Your task to perform on an android device: open app "Viber Messenger" (install if not already installed), go to login, and select forgot password Image 0: 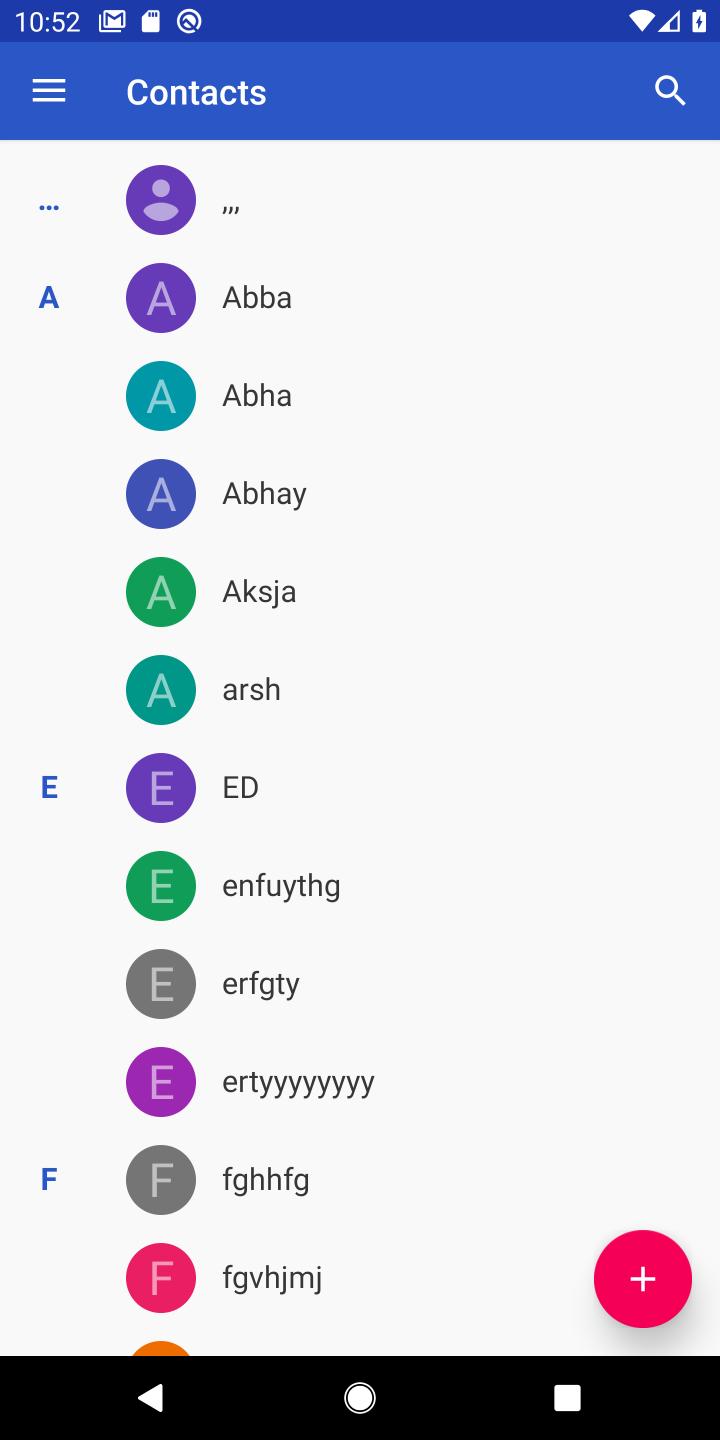
Step 0: press home button
Your task to perform on an android device: open app "Viber Messenger" (install if not already installed), go to login, and select forgot password Image 1: 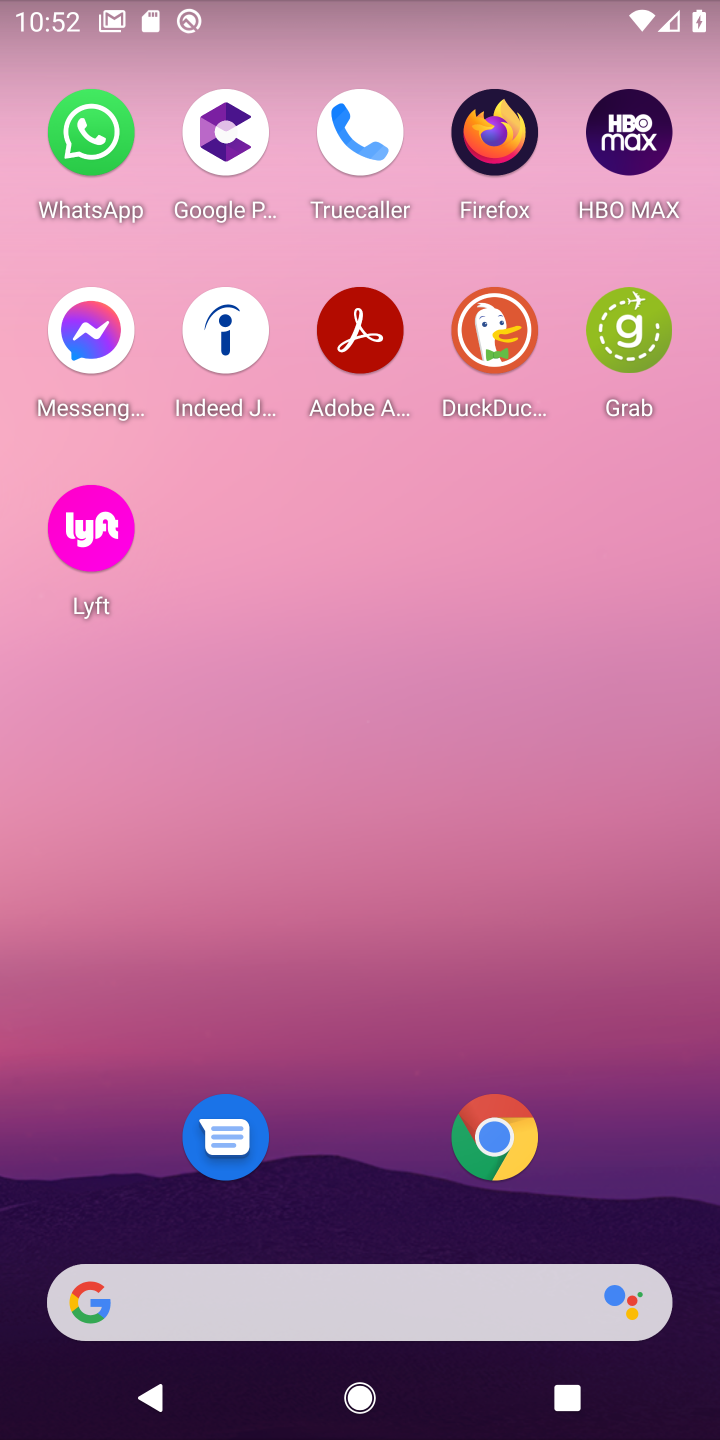
Step 1: drag from (346, 1099) to (375, 303)
Your task to perform on an android device: open app "Viber Messenger" (install if not already installed), go to login, and select forgot password Image 2: 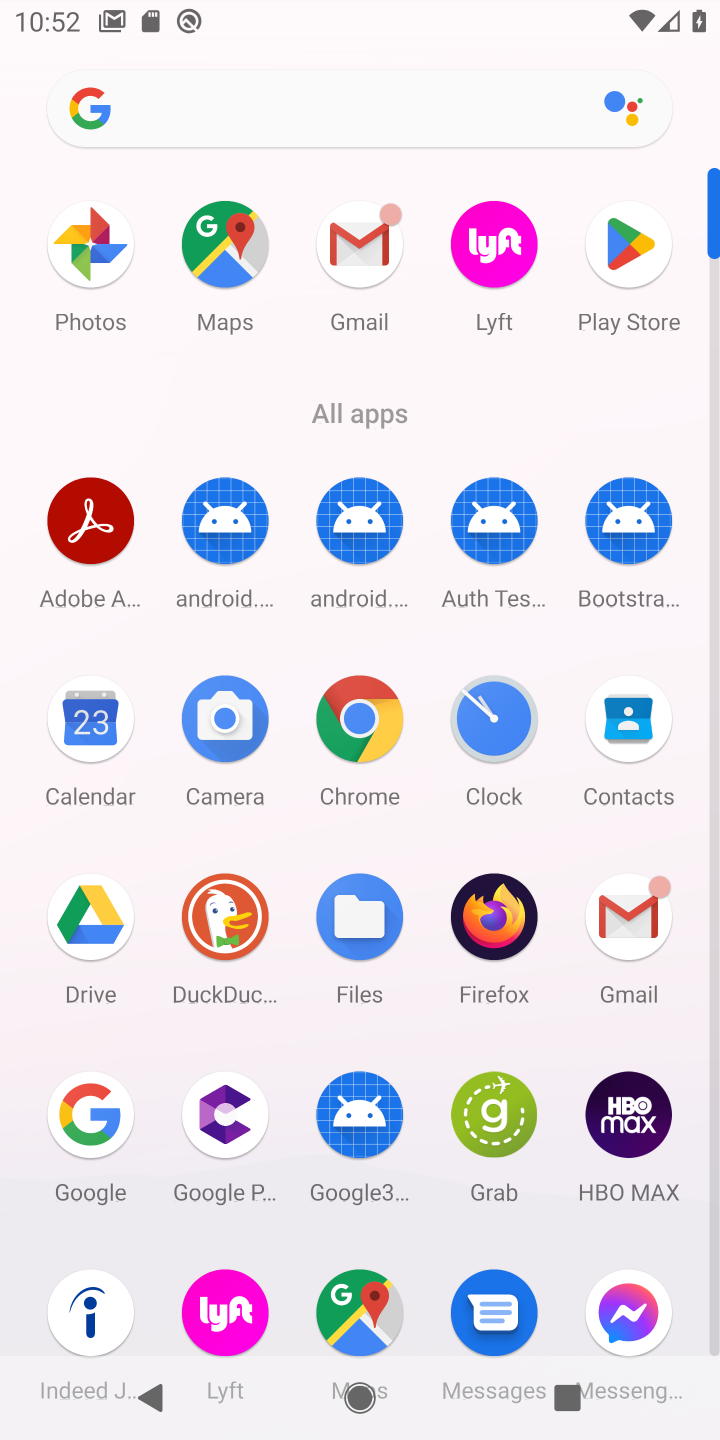
Step 2: click (618, 265)
Your task to perform on an android device: open app "Viber Messenger" (install if not already installed), go to login, and select forgot password Image 3: 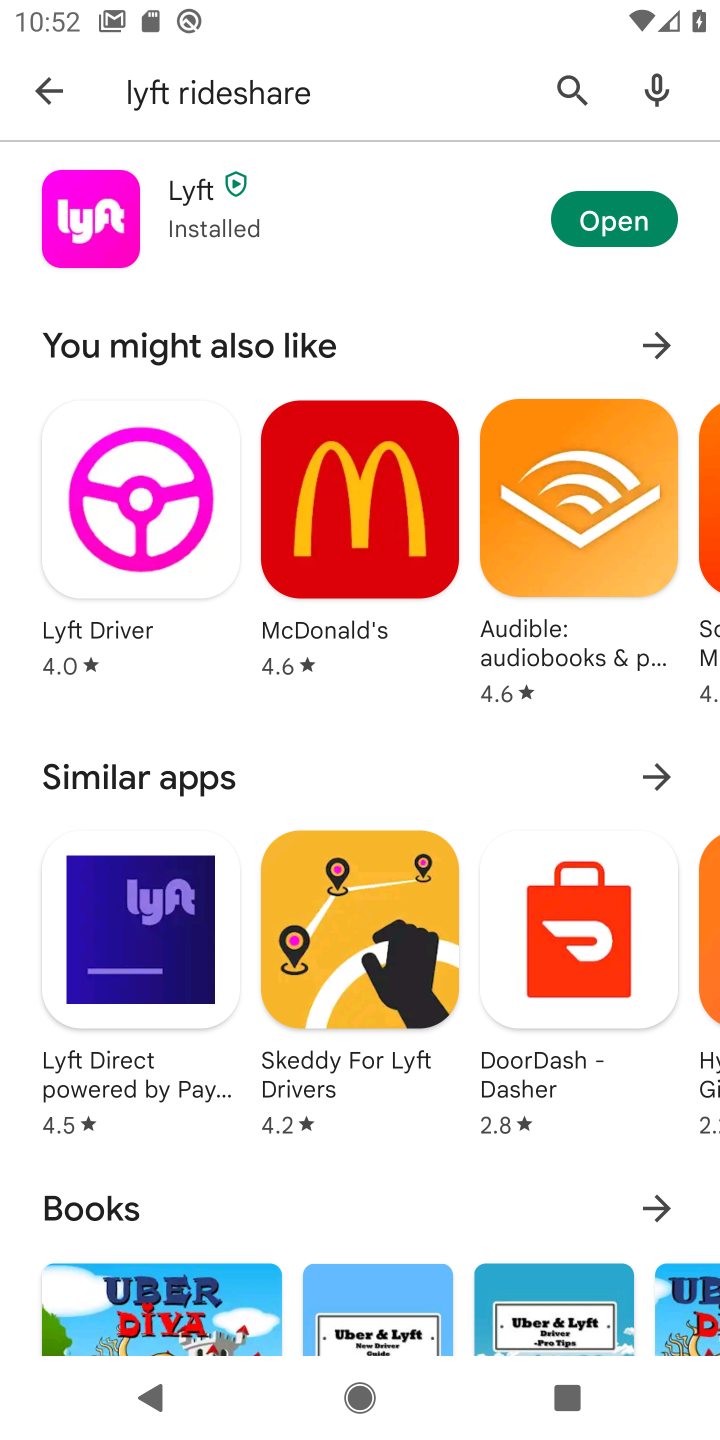
Step 3: click (254, 126)
Your task to perform on an android device: open app "Viber Messenger" (install if not already installed), go to login, and select forgot password Image 4: 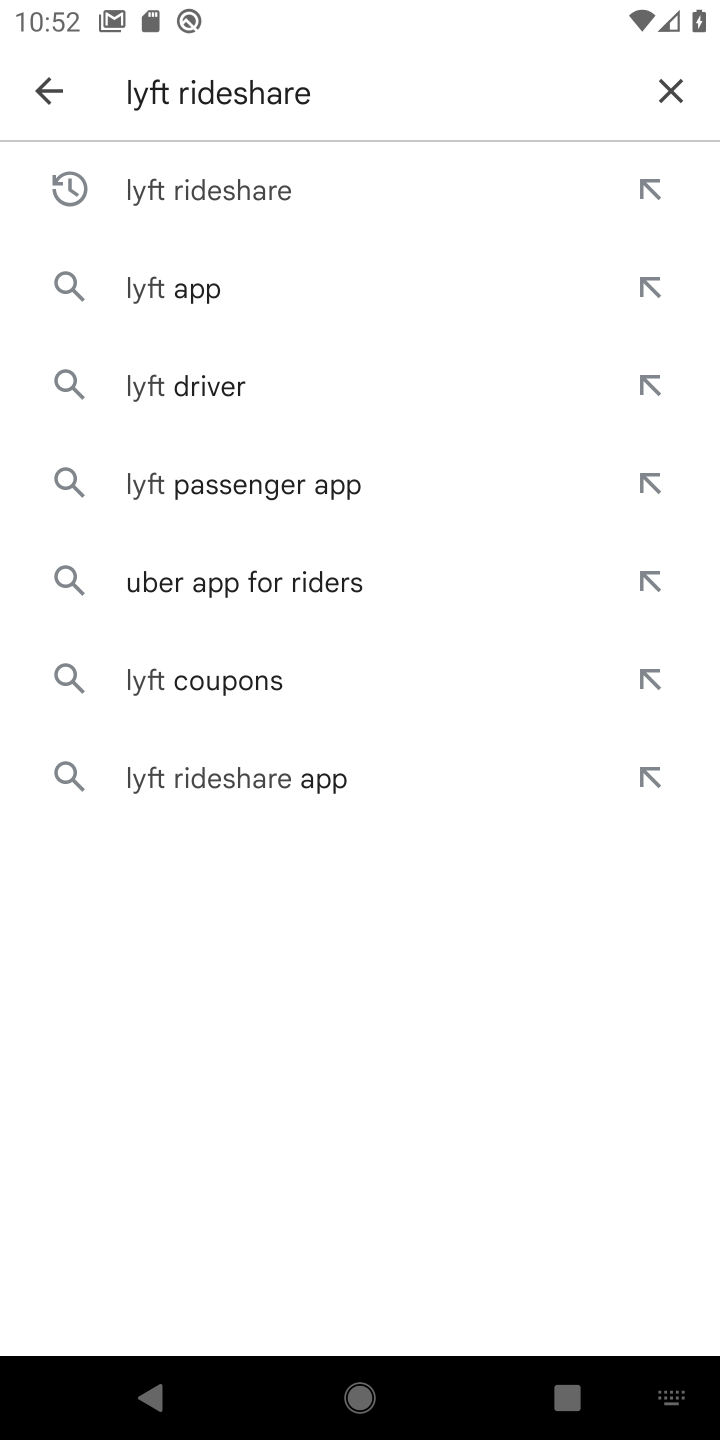
Step 4: click (657, 84)
Your task to perform on an android device: open app "Viber Messenger" (install if not already installed), go to login, and select forgot password Image 5: 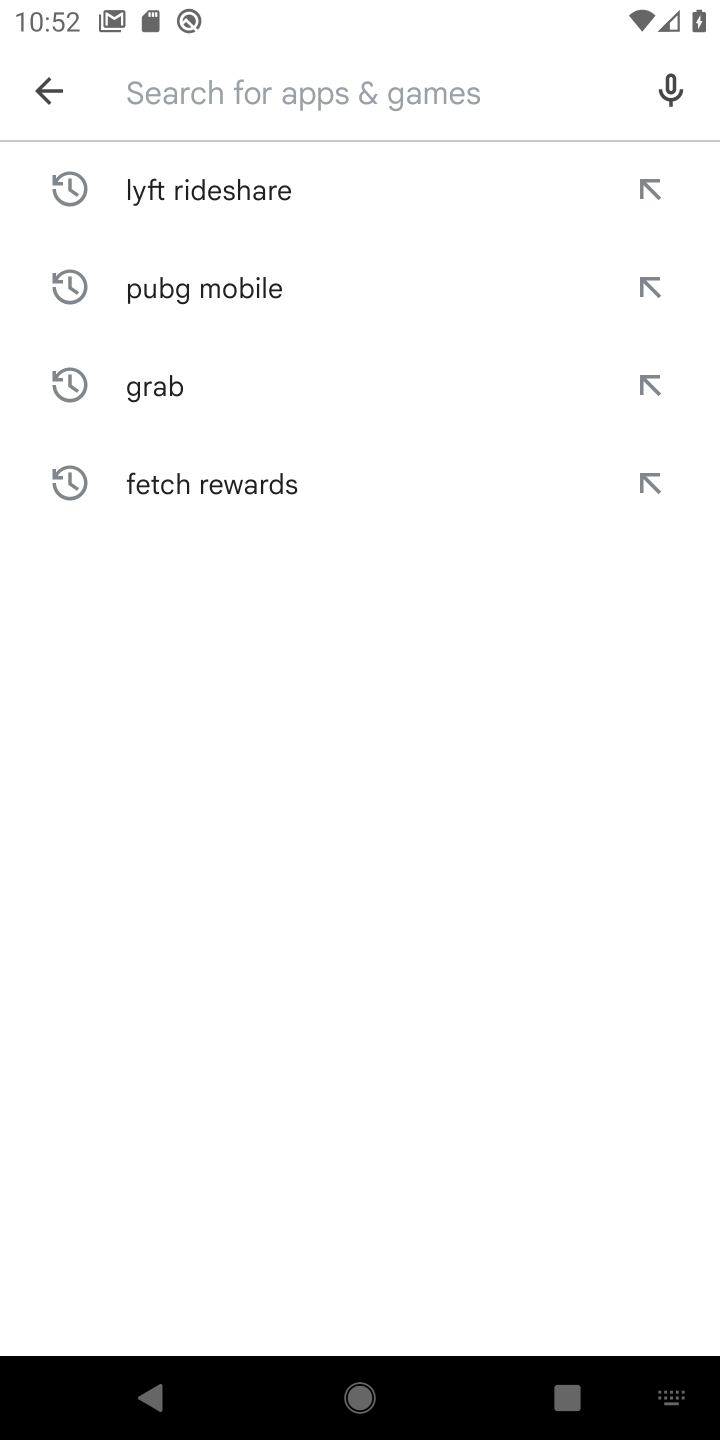
Step 5: type "Viber Messenger"
Your task to perform on an android device: open app "Viber Messenger" (install if not already installed), go to login, and select forgot password Image 6: 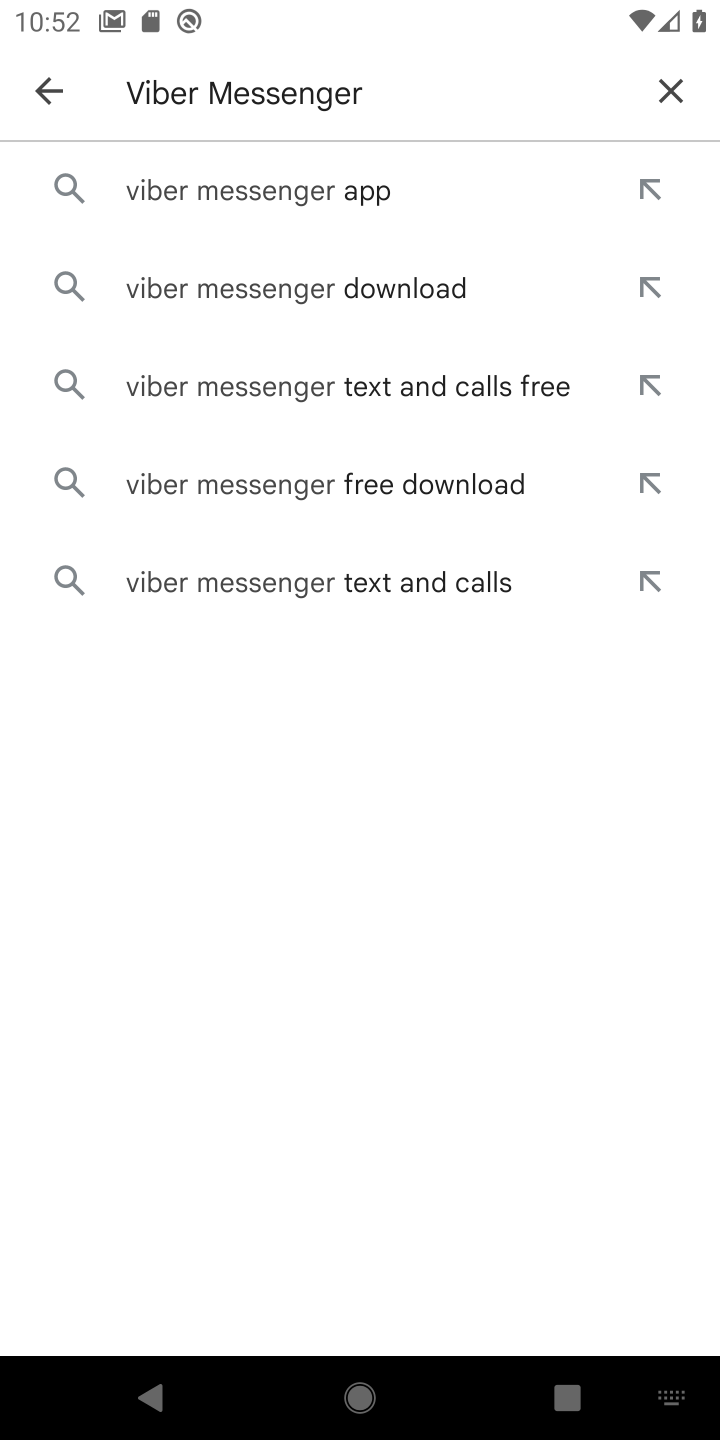
Step 6: click (268, 203)
Your task to perform on an android device: open app "Viber Messenger" (install if not already installed), go to login, and select forgot password Image 7: 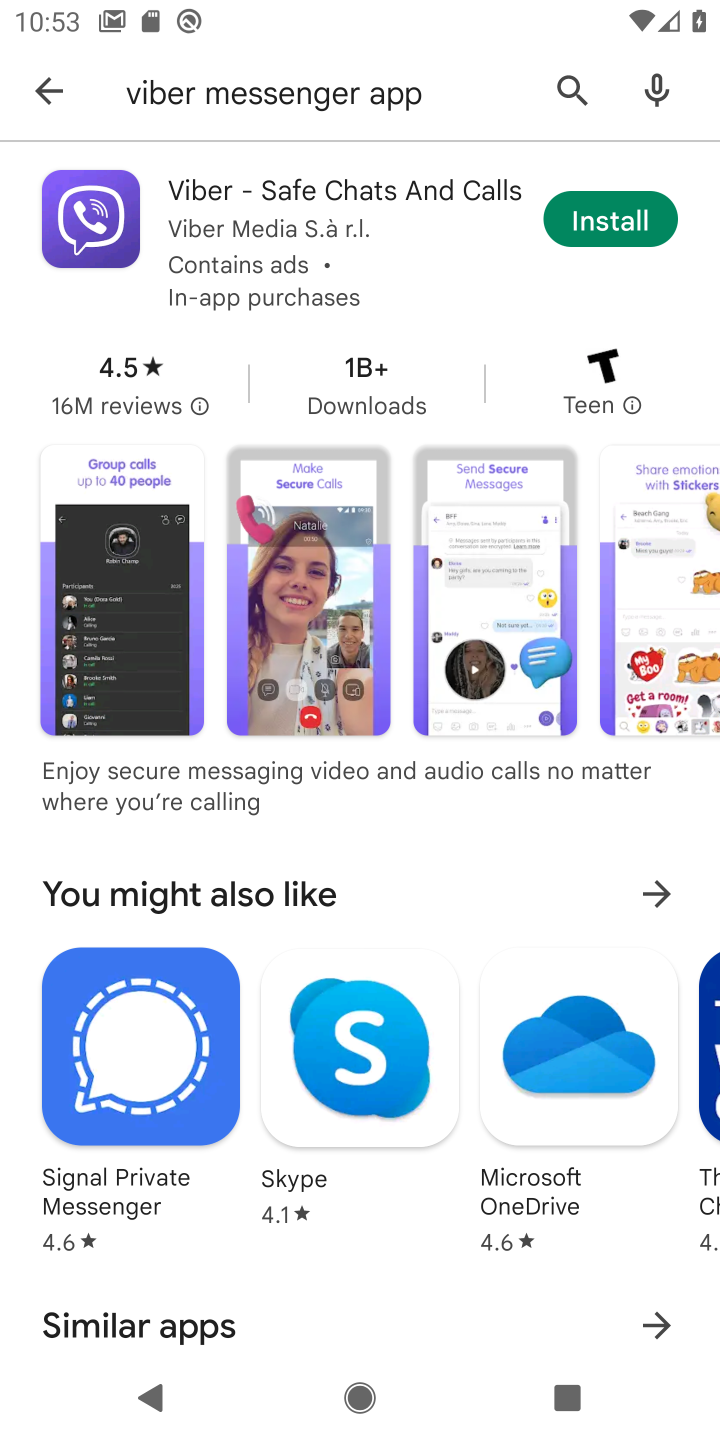
Step 7: click (621, 217)
Your task to perform on an android device: open app "Viber Messenger" (install if not already installed), go to login, and select forgot password Image 8: 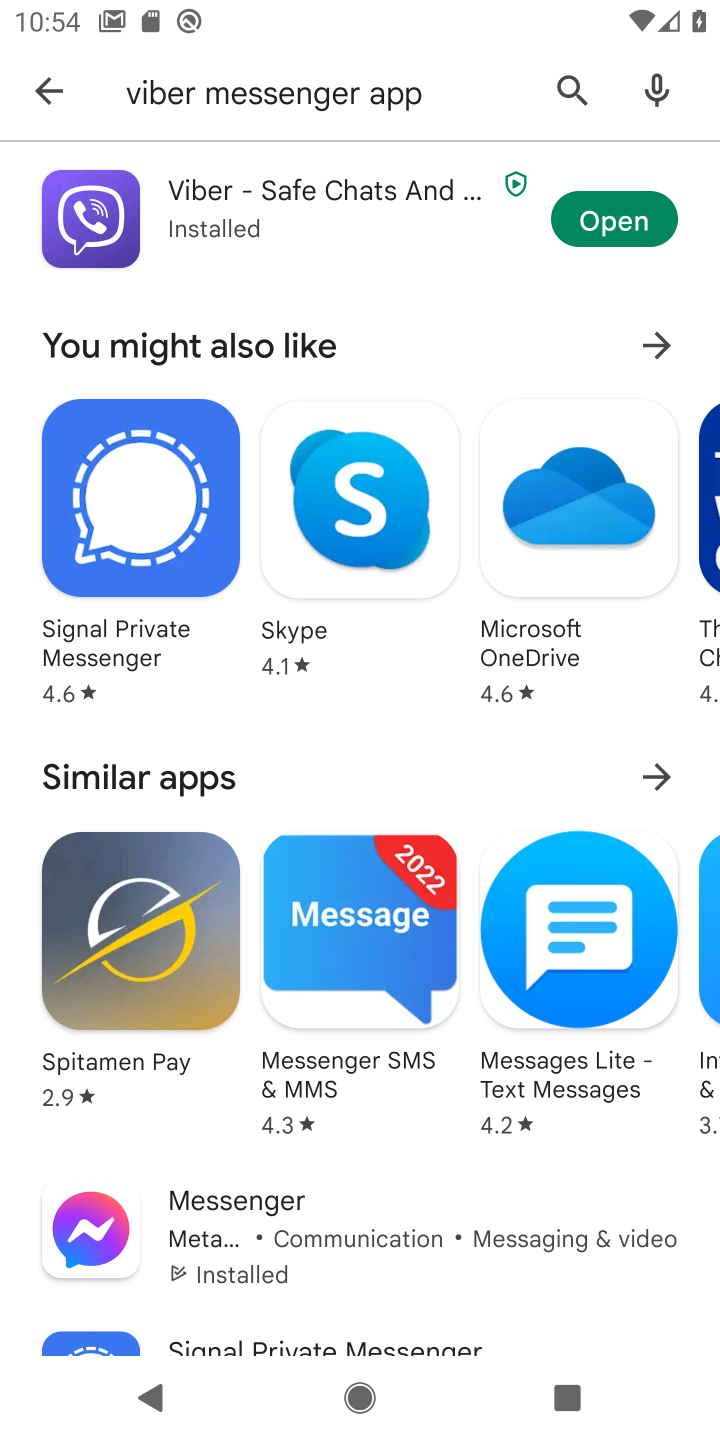
Step 8: click (606, 227)
Your task to perform on an android device: open app "Viber Messenger" (install if not already installed), go to login, and select forgot password Image 9: 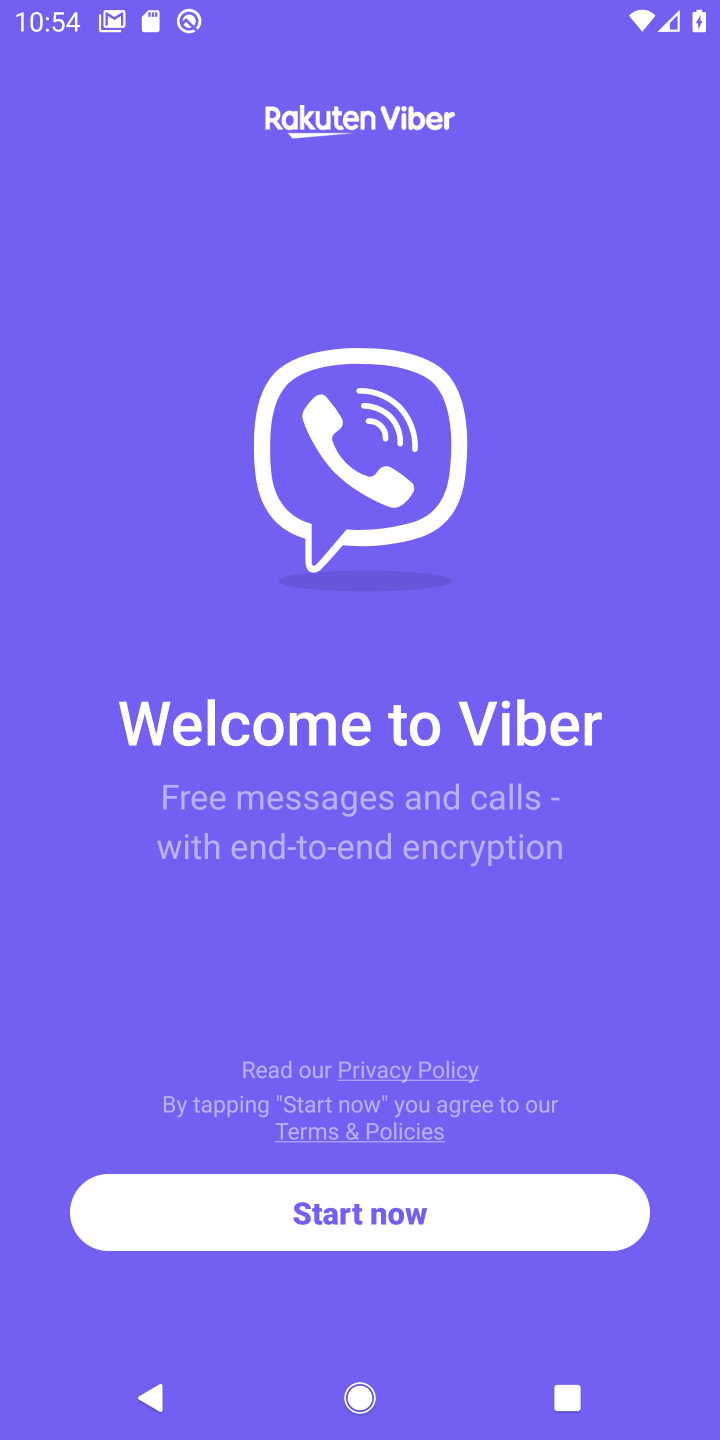
Step 9: click (415, 1238)
Your task to perform on an android device: open app "Viber Messenger" (install if not already installed), go to login, and select forgot password Image 10: 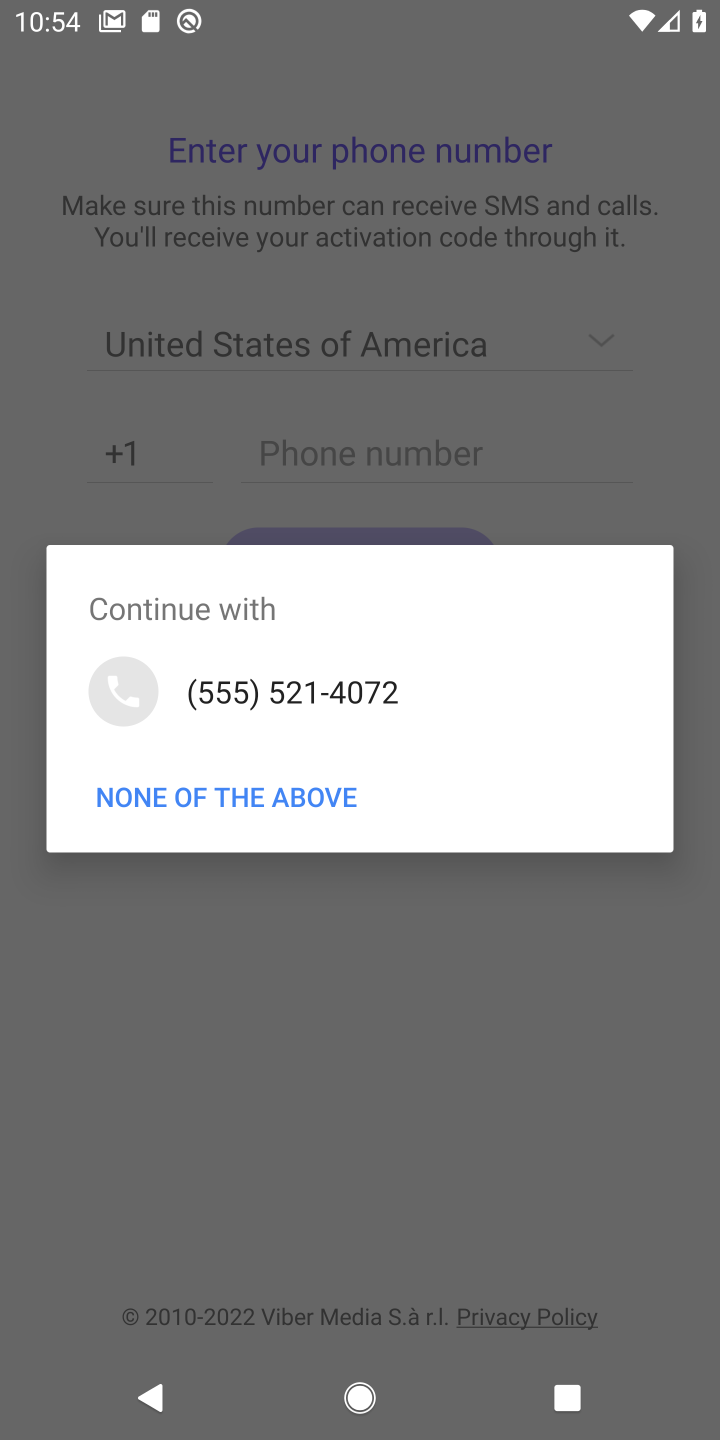
Step 10: click (290, 801)
Your task to perform on an android device: open app "Viber Messenger" (install if not already installed), go to login, and select forgot password Image 11: 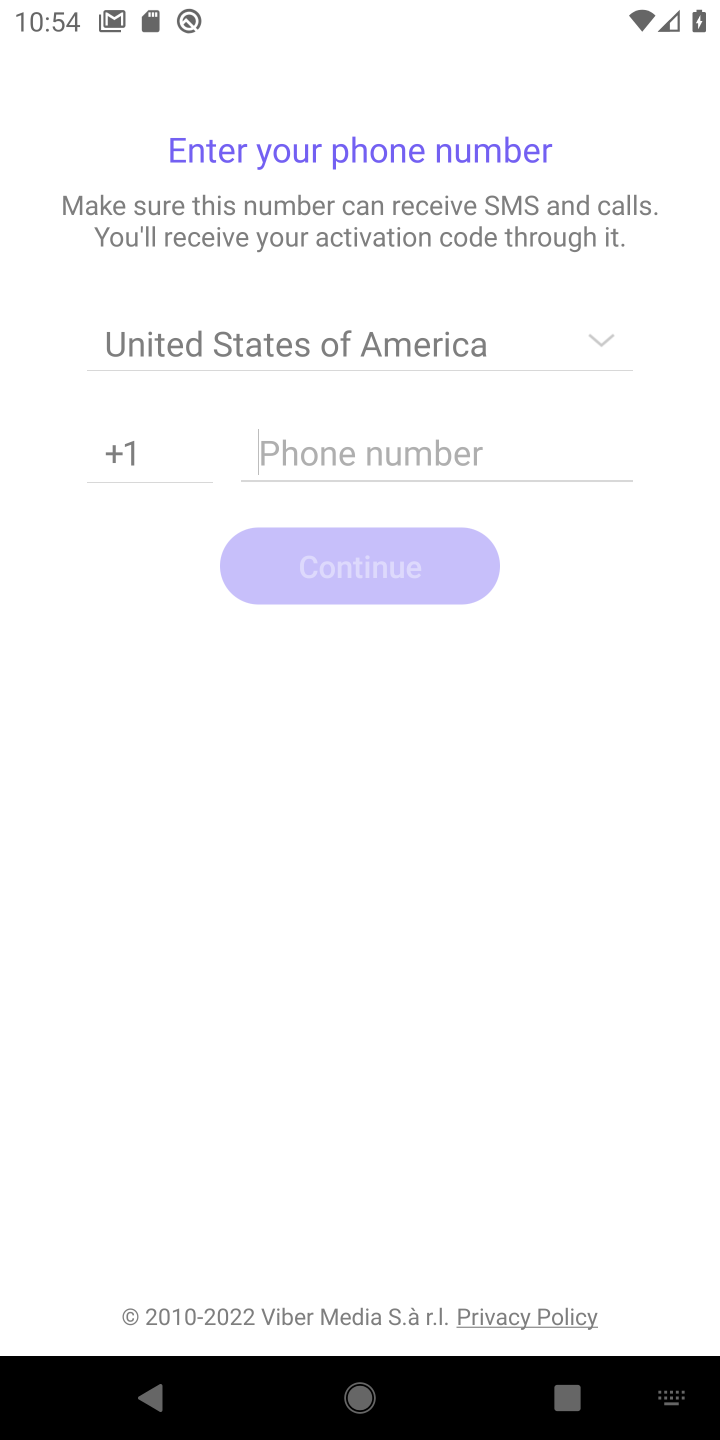
Step 11: task complete